Your task to perform on an android device: toggle show notifications on the lock screen Image 0: 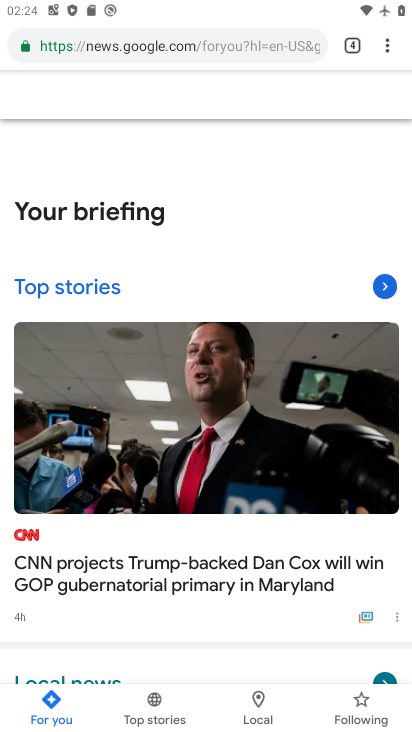
Step 0: press home button
Your task to perform on an android device: toggle show notifications on the lock screen Image 1: 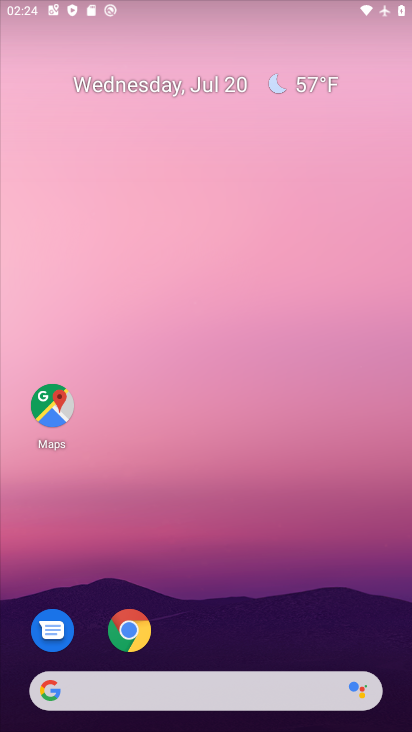
Step 1: drag from (303, 614) to (270, 0)
Your task to perform on an android device: toggle show notifications on the lock screen Image 2: 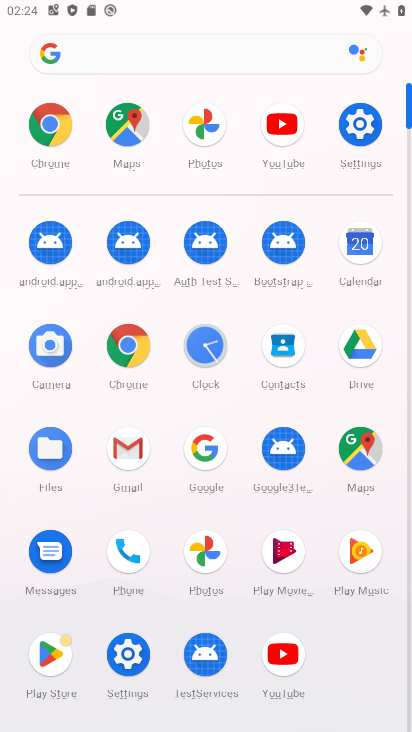
Step 2: click (353, 126)
Your task to perform on an android device: toggle show notifications on the lock screen Image 3: 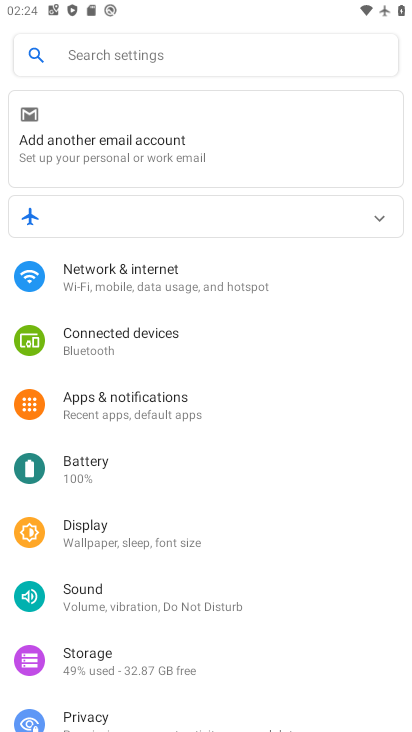
Step 3: click (133, 398)
Your task to perform on an android device: toggle show notifications on the lock screen Image 4: 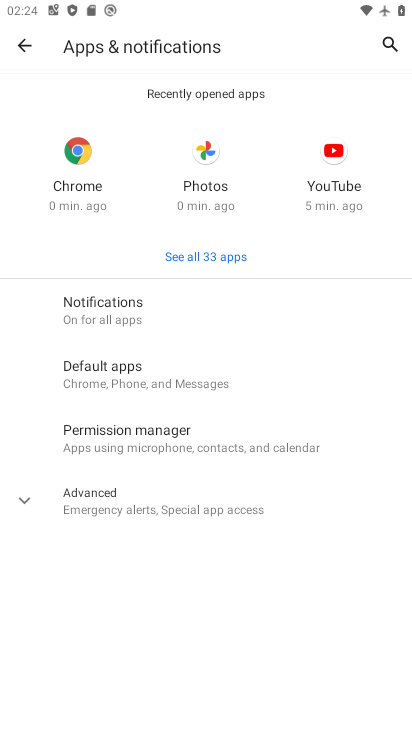
Step 4: click (110, 297)
Your task to perform on an android device: toggle show notifications on the lock screen Image 5: 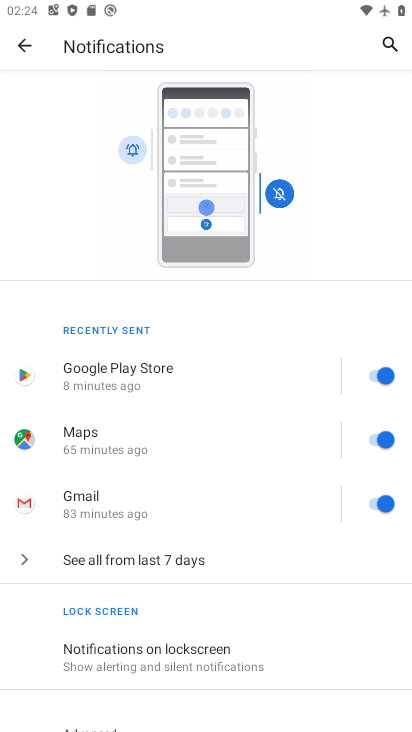
Step 5: click (179, 652)
Your task to perform on an android device: toggle show notifications on the lock screen Image 6: 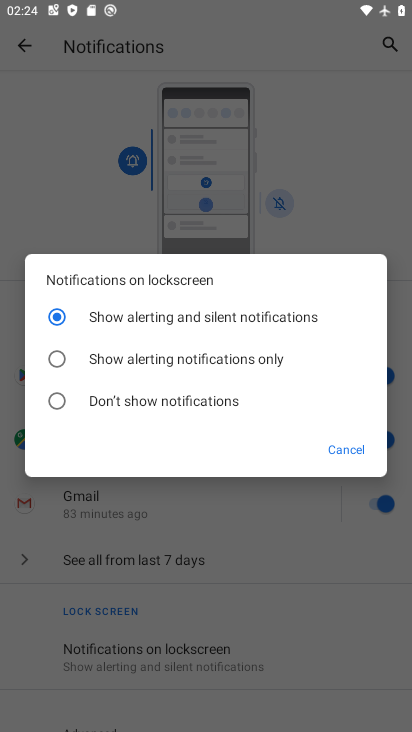
Step 6: click (229, 360)
Your task to perform on an android device: toggle show notifications on the lock screen Image 7: 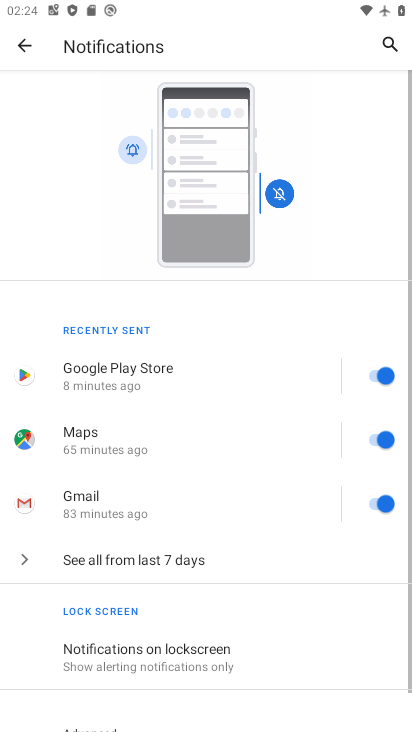
Step 7: task complete